Your task to perform on an android device: check the backup settings in the google photos Image 0: 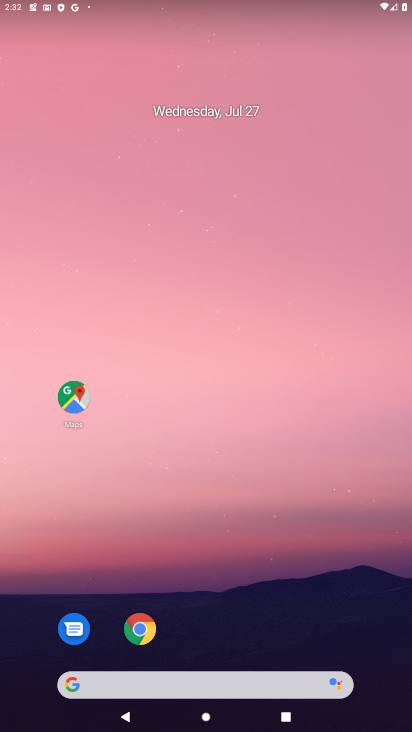
Step 0: task complete